Your task to perform on an android device: What's a good restaurant in Philadelphia? Image 0: 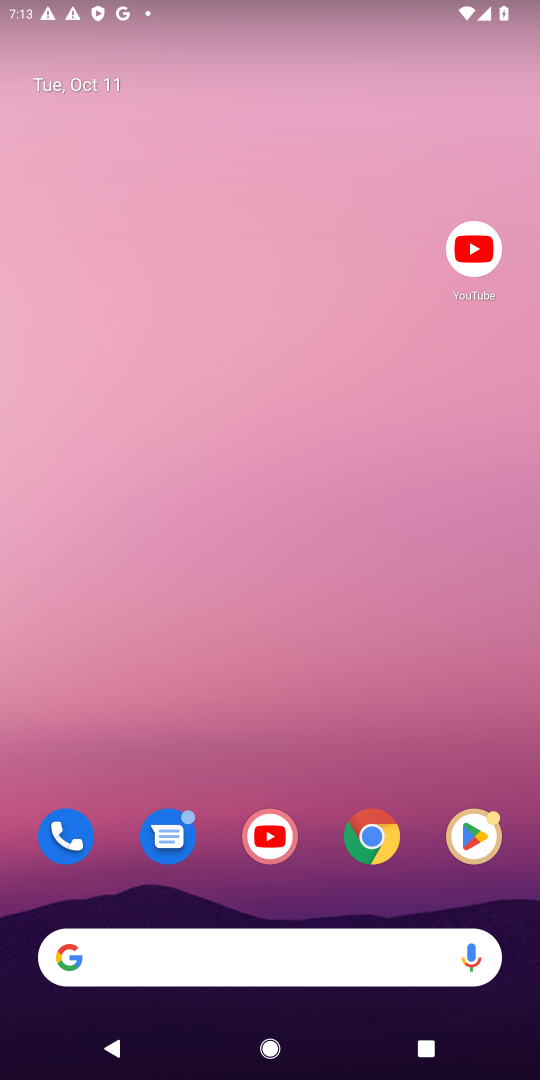
Step 0: click (385, 832)
Your task to perform on an android device: What's a good restaurant in Philadelphia? Image 1: 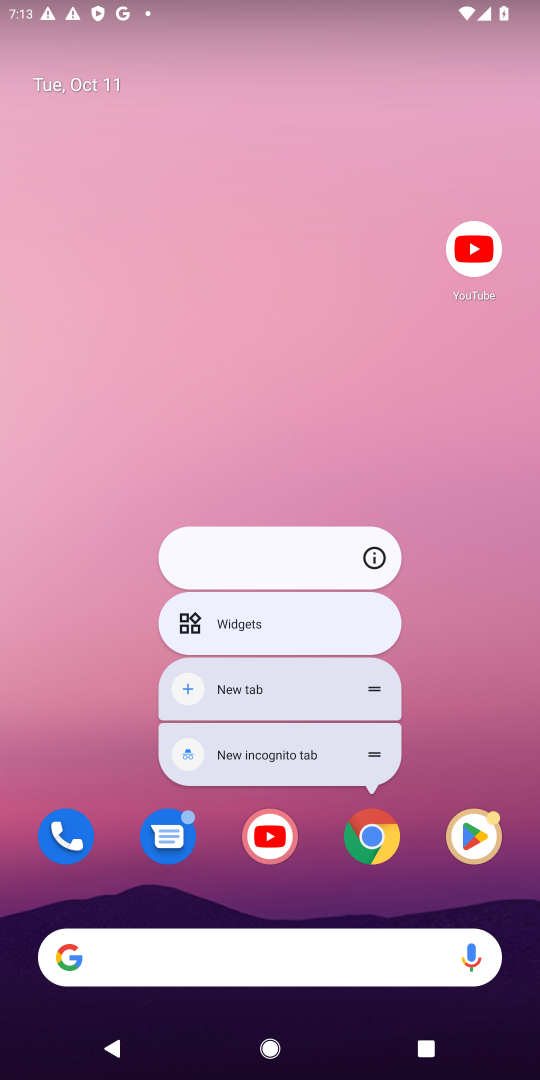
Step 1: click (369, 834)
Your task to perform on an android device: What's a good restaurant in Philadelphia? Image 2: 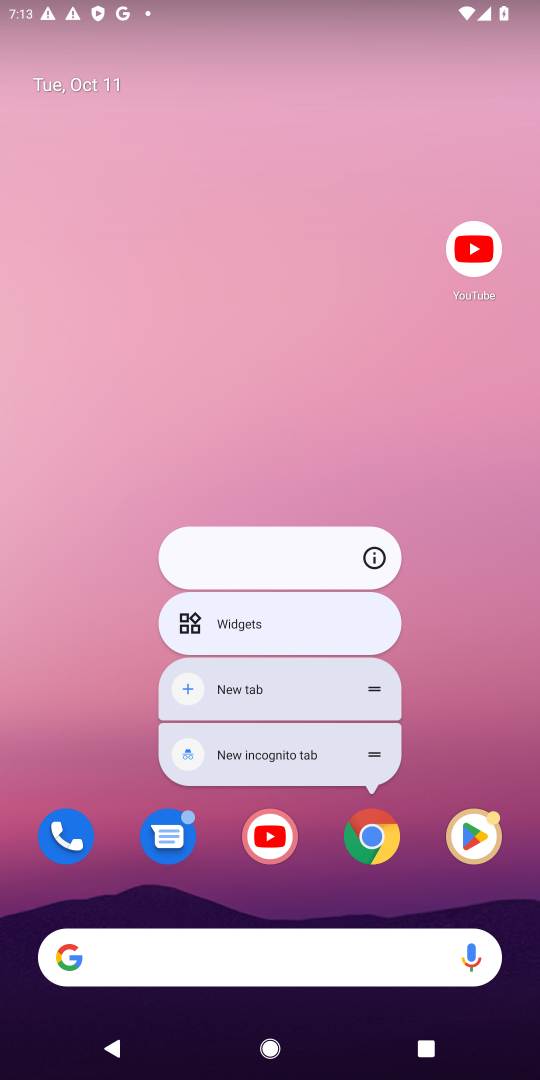
Step 2: click (369, 834)
Your task to perform on an android device: What's a good restaurant in Philadelphia? Image 3: 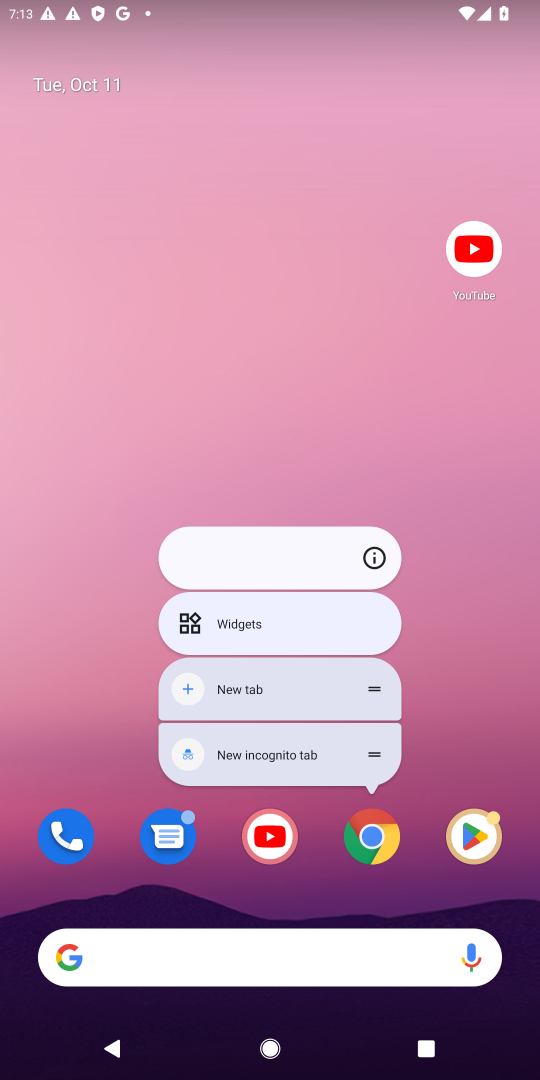
Step 3: click (368, 832)
Your task to perform on an android device: What's a good restaurant in Philadelphia? Image 4: 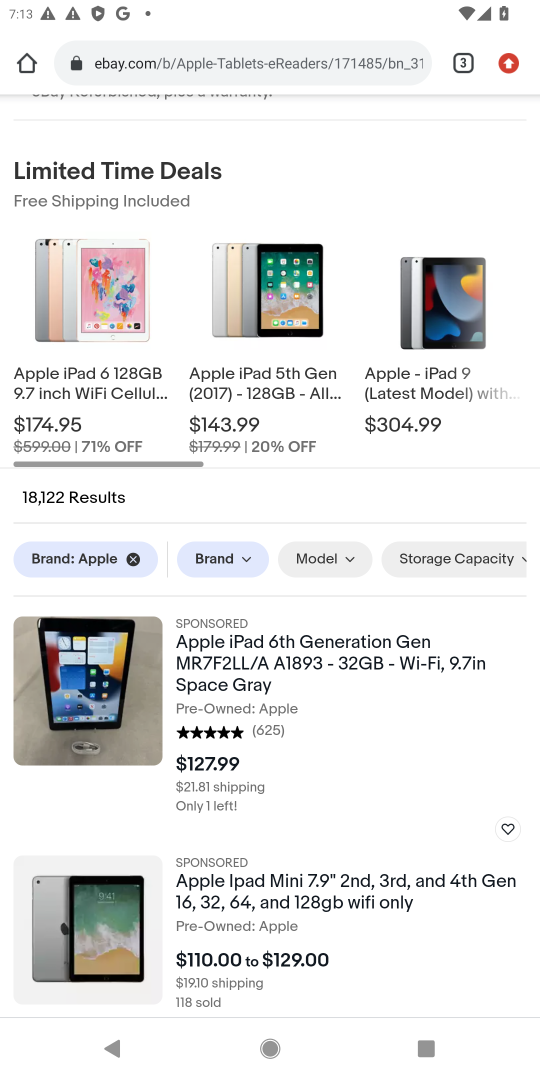
Step 4: click (321, 60)
Your task to perform on an android device: What's a good restaurant in Philadelphia? Image 5: 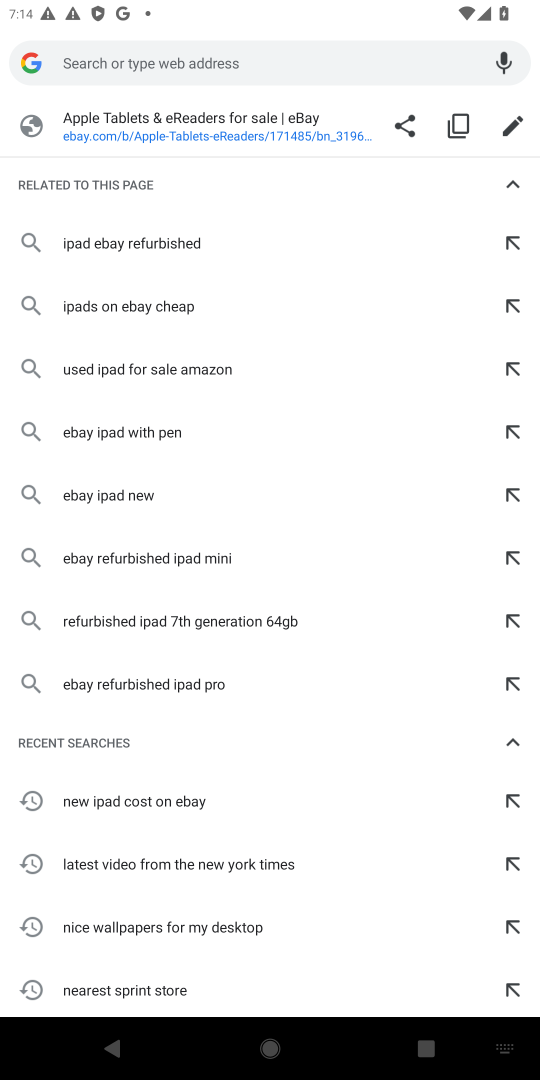
Step 5: type "good restaurant in Philadelphia"
Your task to perform on an android device: What's a good restaurant in Philadelphia? Image 6: 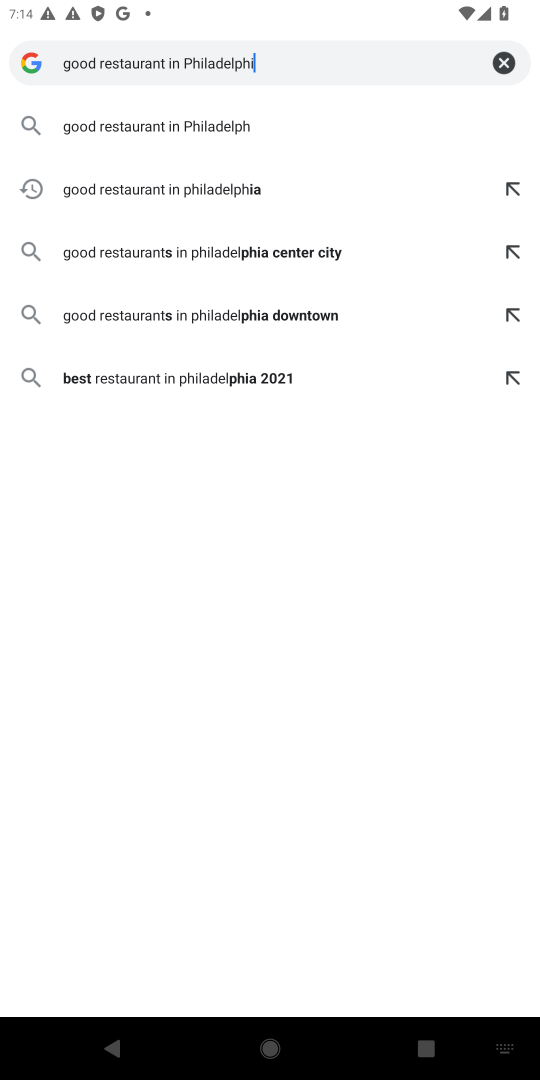
Step 6: press enter
Your task to perform on an android device: What's a good restaurant in Philadelphia? Image 7: 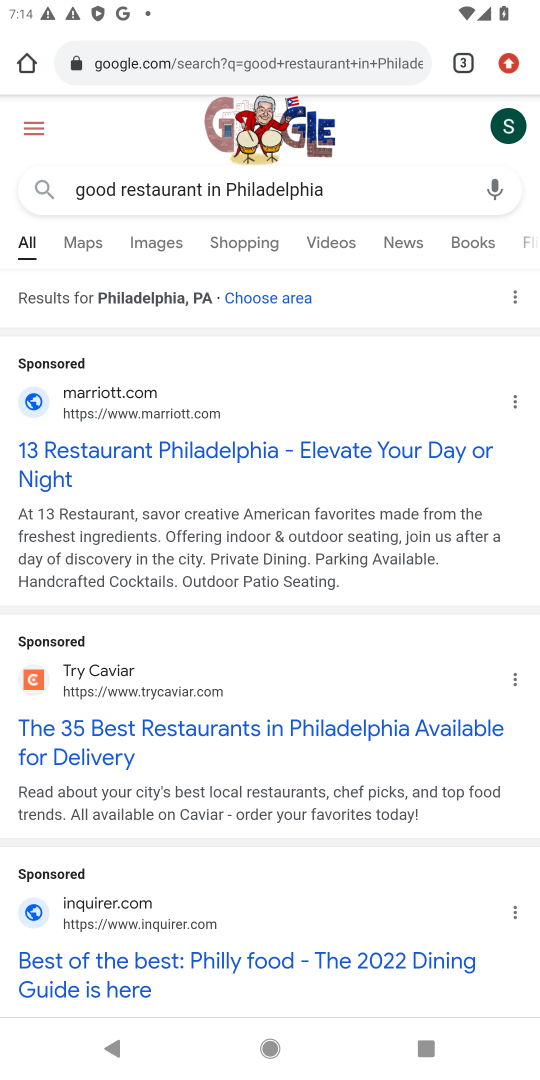
Step 7: drag from (263, 859) to (478, 351)
Your task to perform on an android device: What's a good restaurant in Philadelphia? Image 8: 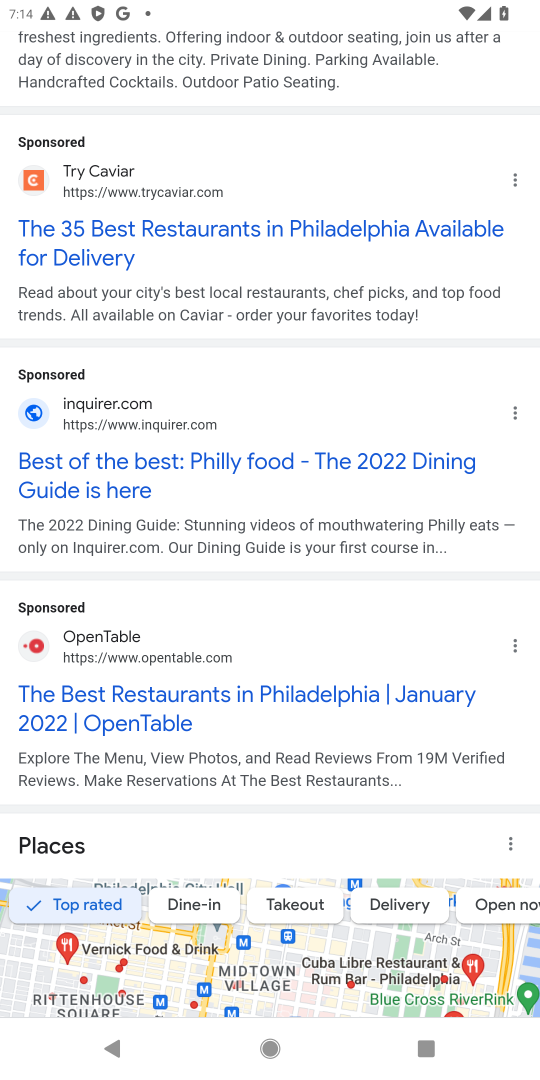
Step 8: drag from (254, 845) to (377, 247)
Your task to perform on an android device: What's a good restaurant in Philadelphia? Image 9: 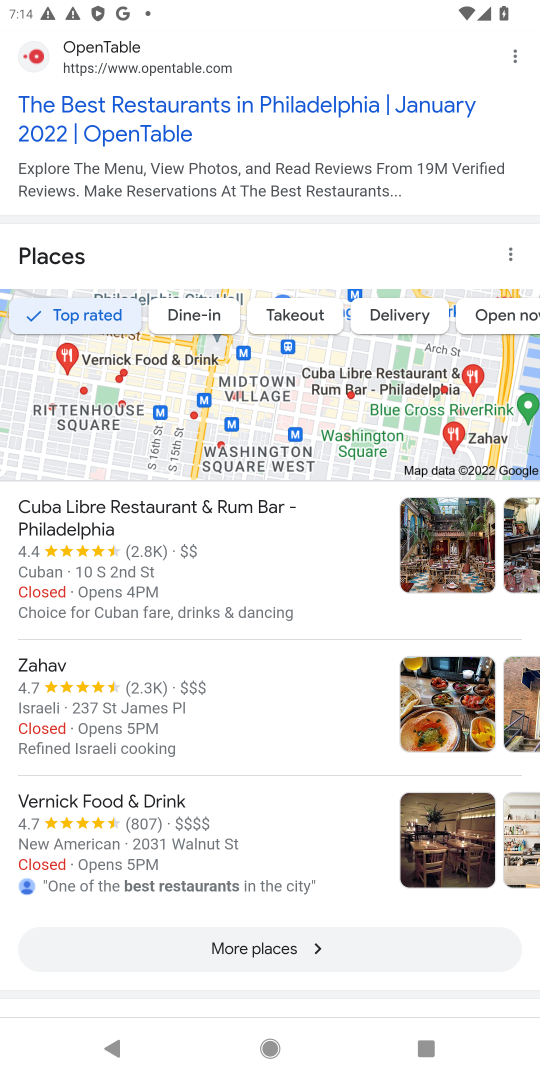
Step 9: click (269, 950)
Your task to perform on an android device: What's a good restaurant in Philadelphia? Image 10: 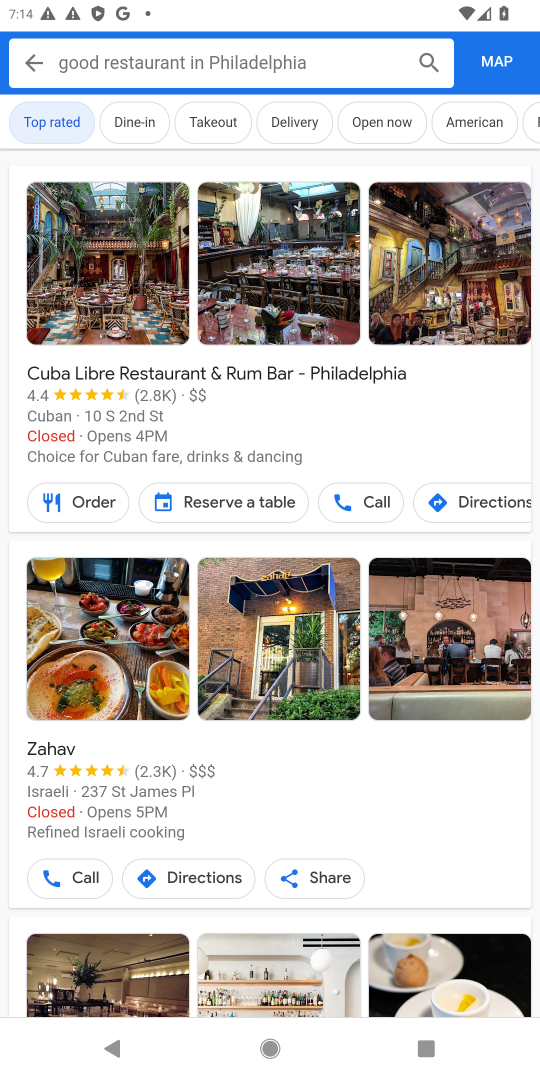
Step 10: task complete